Your task to perform on an android device: delete a single message in the gmail app Image 0: 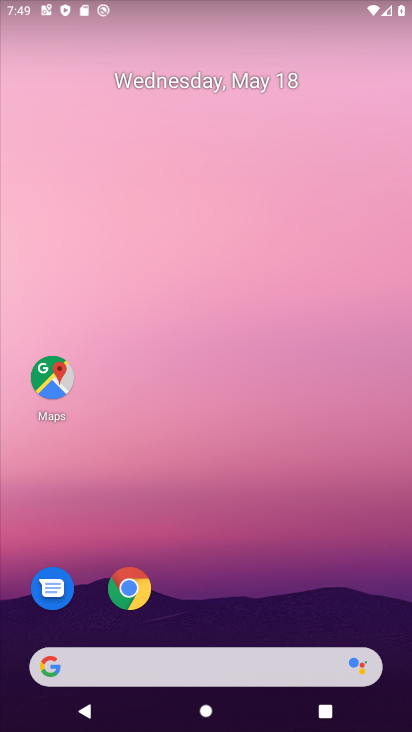
Step 0: drag from (246, 514) to (253, 3)
Your task to perform on an android device: delete a single message in the gmail app Image 1: 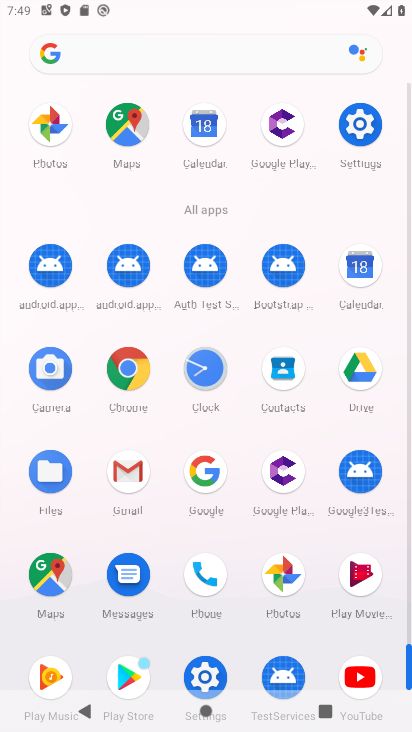
Step 1: drag from (3, 541) to (3, 225)
Your task to perform on an android device: delete a single message in the gmail app Image 2: 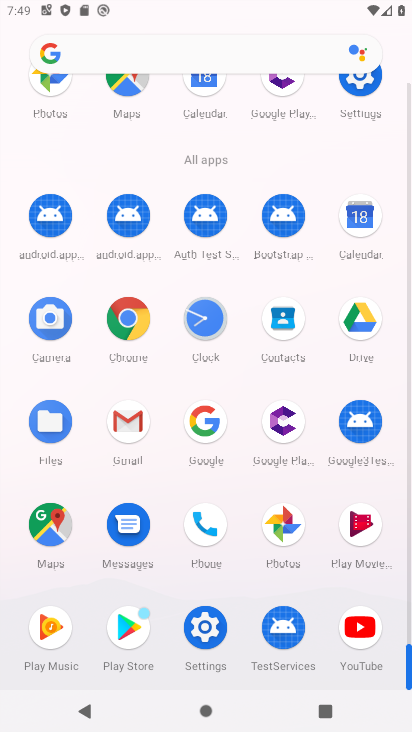
Step 2: click (125, 416)
Your task to perform on an android device: delete a single message in the gmail app Image 3: 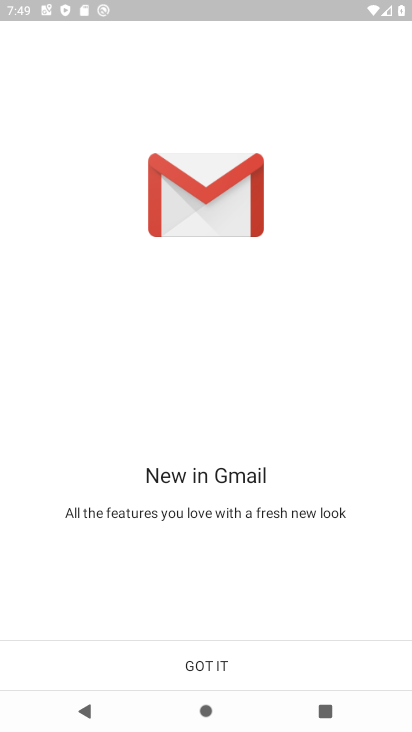
Step 3: click (188, 645)
Your task to perform on an android device: delete a single message in the gmail app Image 4: 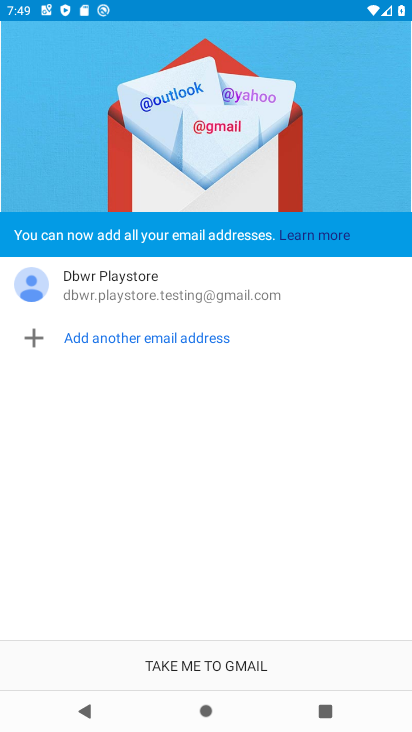
Step 4: click (214, 670)
Your task to perform on an android device: delete a single message in the gmail app Image 5: 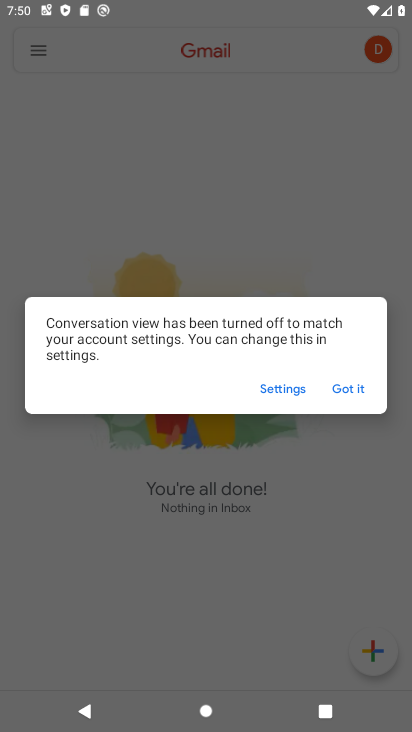
Step 5: click (339, 387)
Your task to perform on an android device: delete a single message in the gmail app Image 6: 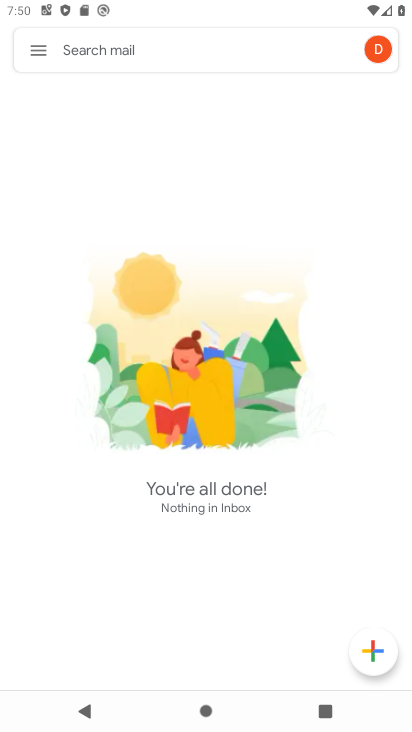
Step 6: click (38, 48)
Your task to perform on an android device: delete a single message in the gmail app Image 7: 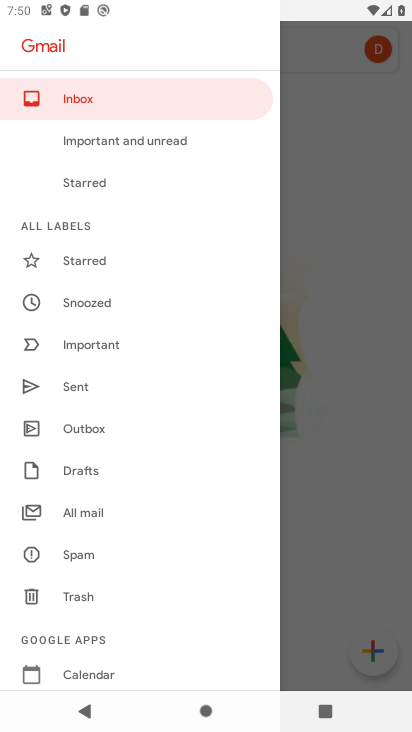
Step 7: click (102, 511)
Your task to perform on an android device: delete a single message in the gmail app Image 8: 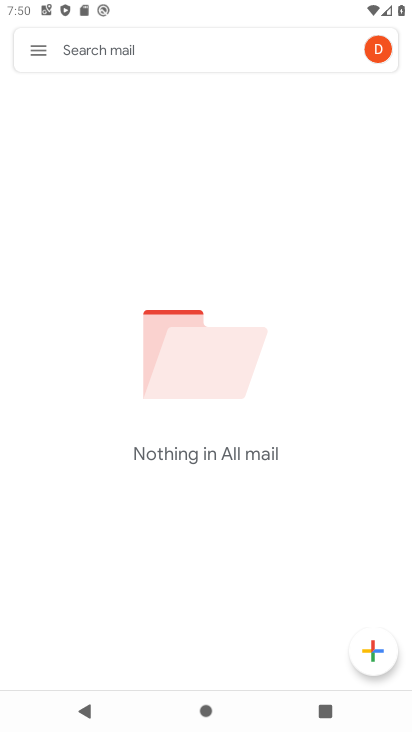
Step 8: task complete